Your task to perform on an android device: Show me productivity apps on the Play Store Image 0: 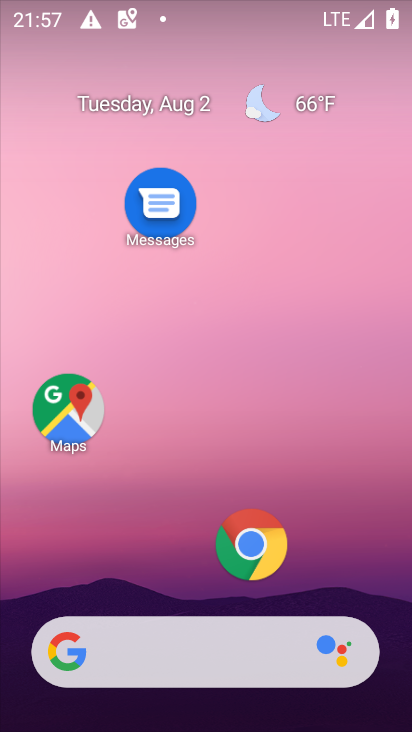
Step 0: drag from (175, 580) to (132, 171)
Your task to perform on an android device: Show me productivity apps on the Play Store Image 1: 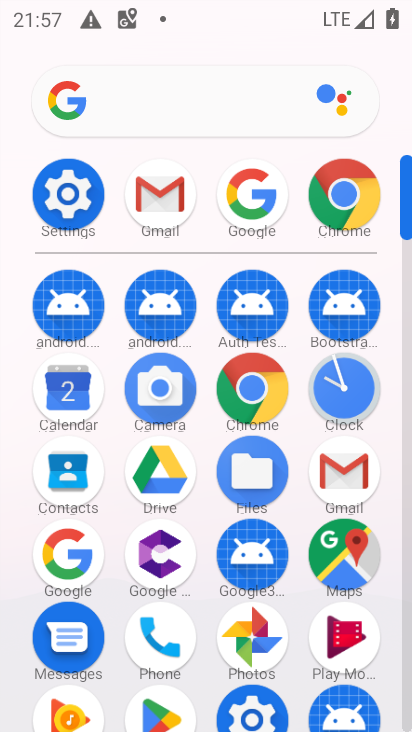
Step 1: drag from (120, 580) to (117, 248)
Your task to perform on an android device: Show me productivity apps on the Play Store Image 2: 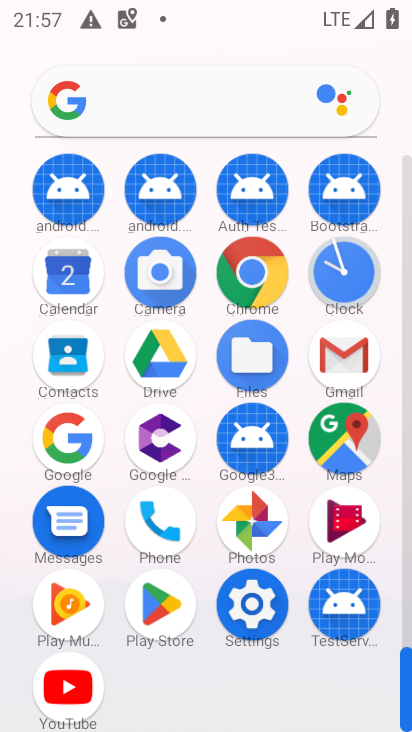
Step 2: click (146, 593)
Your task to perform on an android device: Show me productivity apps on the Play Store Image 3: 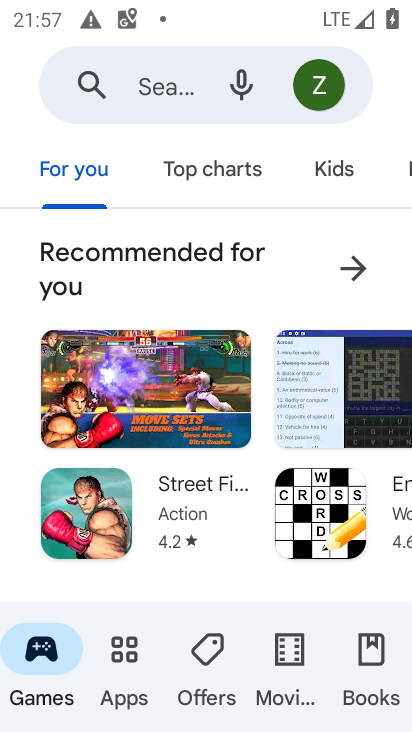
Step 3: click (126, 665)
Your task to perform on an android device: Show me productivity apps on the Play Store Image 4: 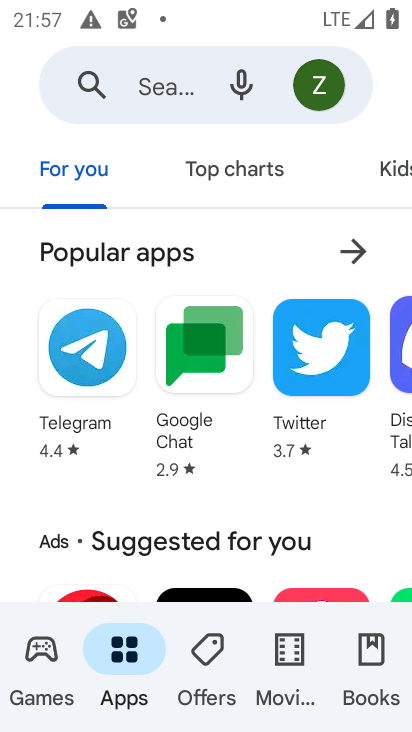
Step 4: drag from (314, 171) to (9, 159)
Your task to perform on an android device: Show me productivity apps on the Play Store Image 5: 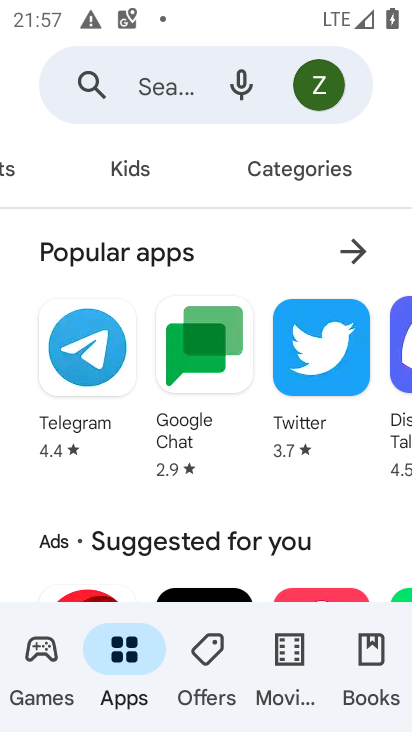
Step 5: click (259, 166)
Your task to perform on an android device: Show me productivity apps on the Play Store Image 6: 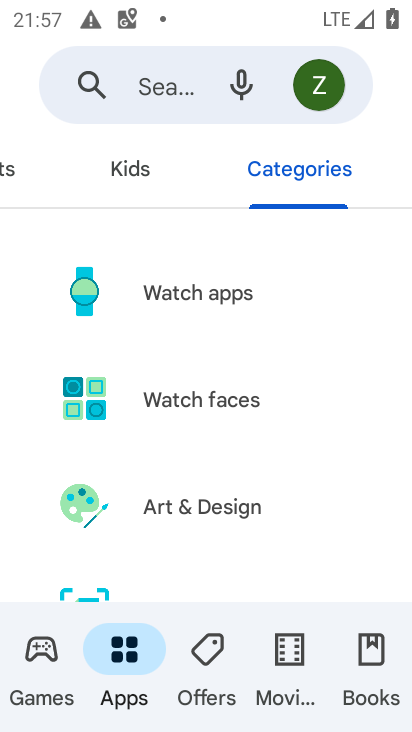
Step 6: drag from (217, 528) to (217, 299)
Your task to perform on an android device: Show me productivity apps on the Play Store Image 7: 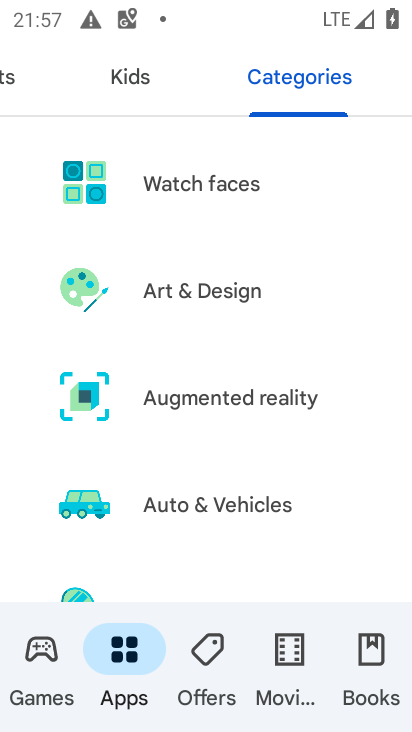
Step 7: drag from (223, 550) to (230, 269)
Your task to perform on an android device: Show me productivity apps on the Play Store Image 8: 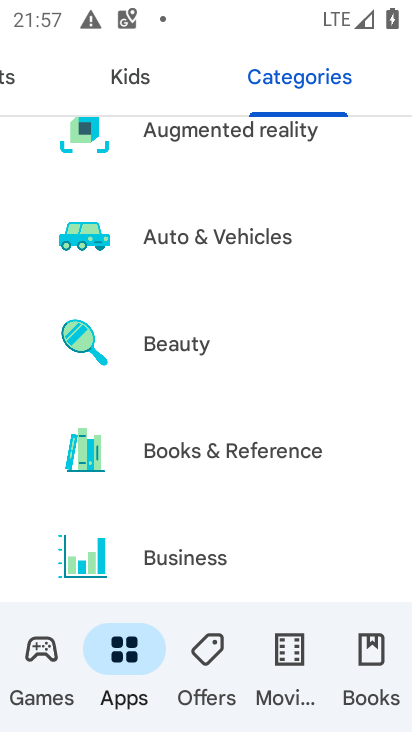
Step 8: drag from (228, 508) to (228, 259)
Your task to perform on an android device: Show me productivity apps on the Play Store Image 9: 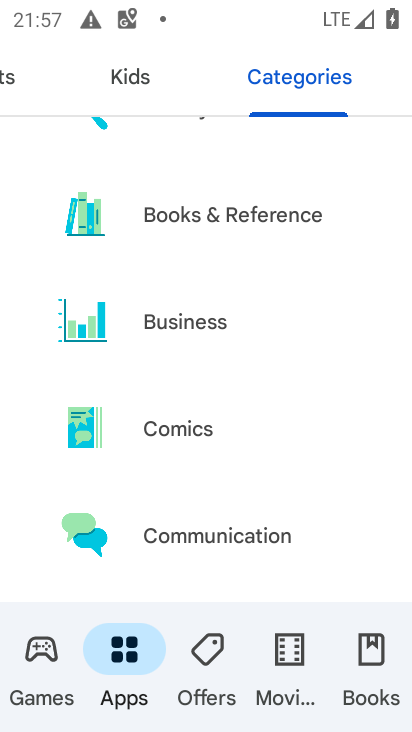
Step 9: drag from (244, 514) to (247, 256)
Your task to perform on an android device: Show me productivity apps on the Play Store Image 10: 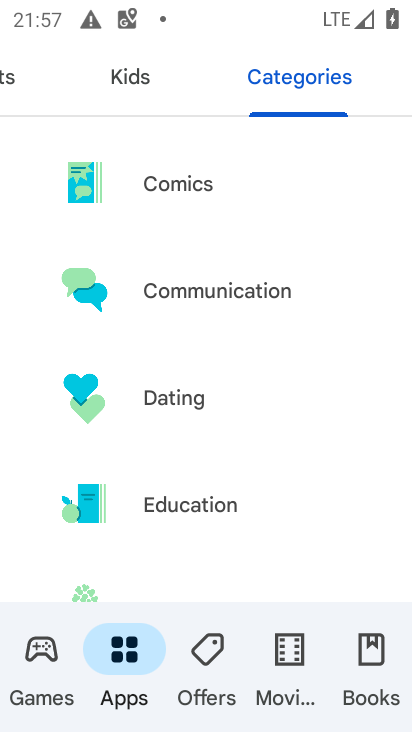
Step 10: drag from (237, 502) to (240, 75)
Your task to perform on an android device: Show me productivity apps on the Play Store Image 11: 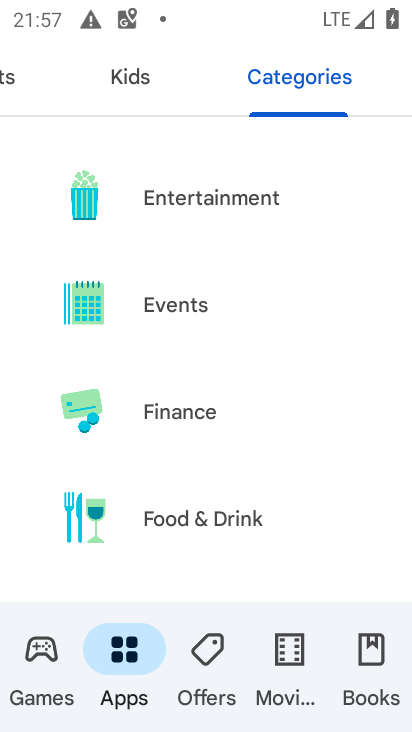
Step 11: drag from (264, 486) to (281, 153)
Your task to perform on an android device: Show me productivity apps on the Play Store Image 12: 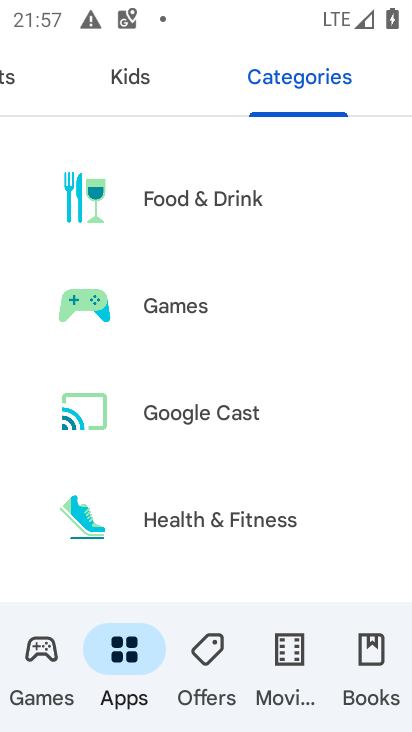
Step 12: drag from (266, 491) to (272, 185)
Your task to perform on an android device: Show me productivity apps on the Play Store Image 13: 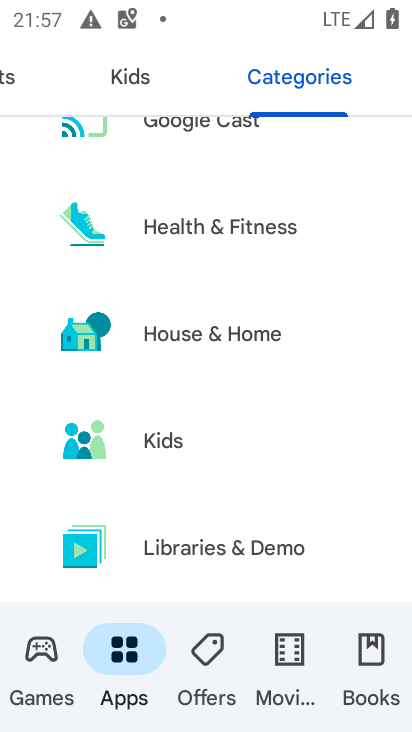
Step 13: drag from (265, 536) to (256, 128)
Your task to perform on an android device: Show me productivity apps on the Play Store Image 14: 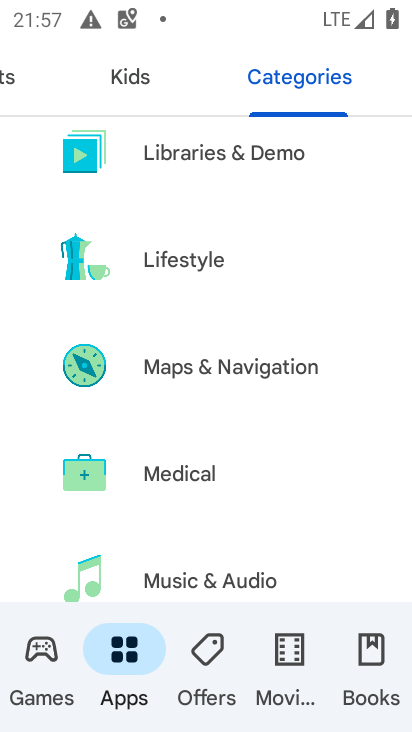
Step 14: drag from (214, 541) to (212, 190)
Your task to perform on an android device: Show me productivity apps on the Play Store Image 15: 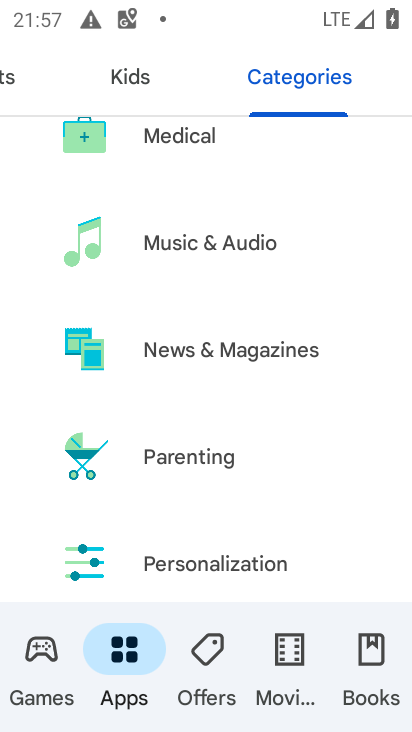
Step 15: drag from (232, 525) to (237, 237)
Your task to perform on an android device: Show me productivity apps on the Play Store Image 16: 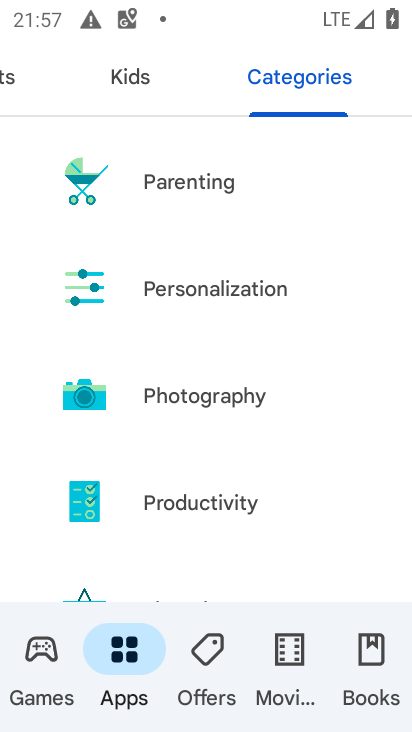
Step 16: click (204, 500)
Your task to perform on an android device: Show me productivity apps on the Play Store Image 17: 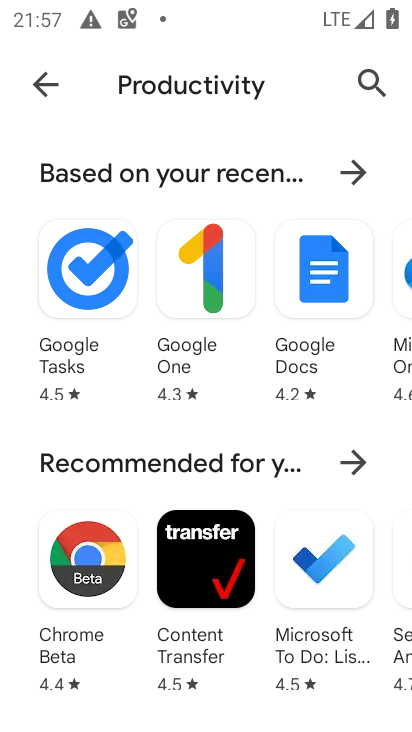
Step 17: task complete